Your task to perform on an android device: See recent photos Image 0: 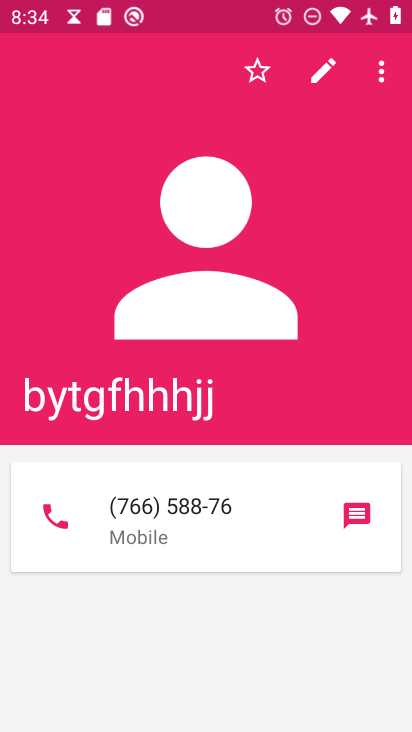
Step 0: press home button
Your task to perform on an android device: See recent photos Image 1: 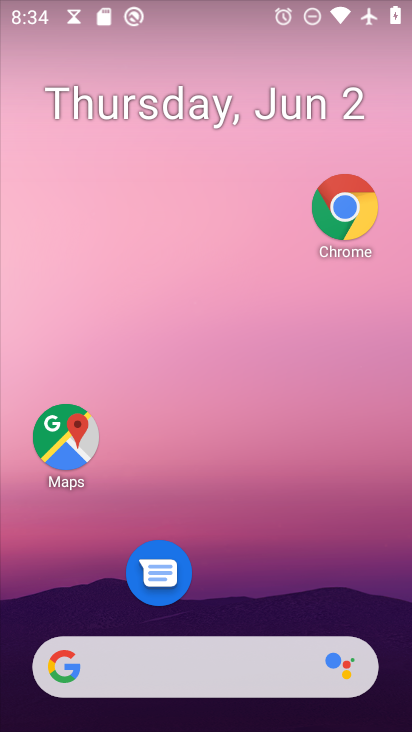
Step 1: drag from (175, 638) to (319, 98)
Your task to perform on an android device: See recent photos Image 2: 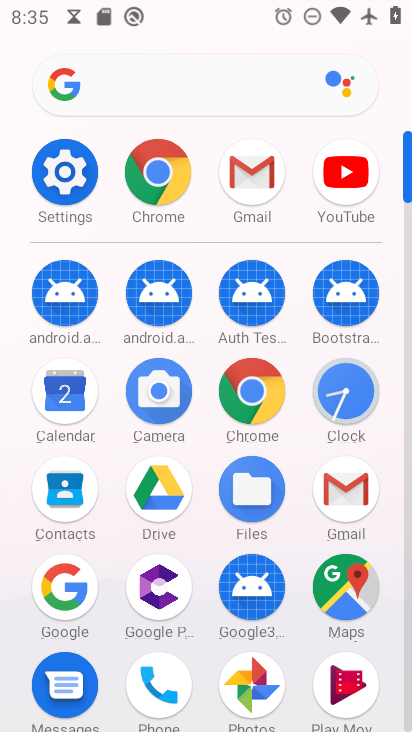
Step 2: click (248, 680)
Your task to perform on an android device: See recent photos Image 3: 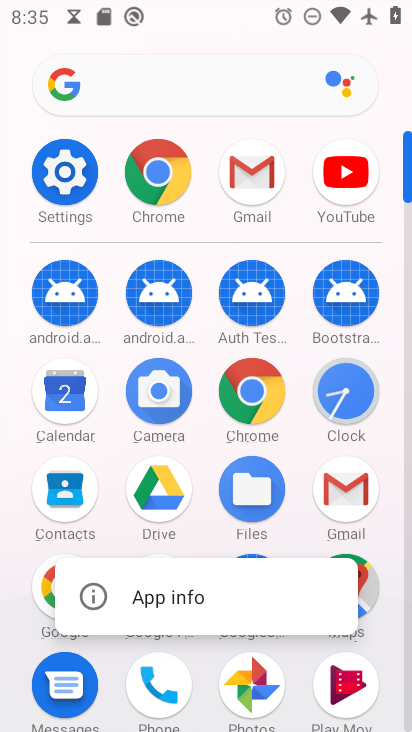
Step 3: click (256, 686)
Your task to perform on an android device: See recent photos Image 4: 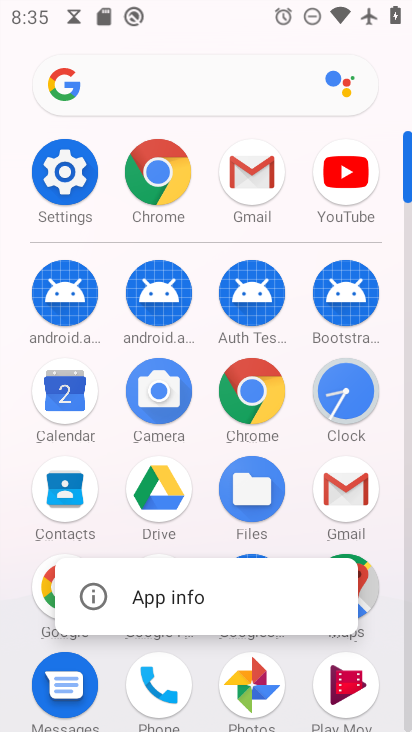
Step 4: click (252, 691)
Your task to perform on an android device: See recent photos Image 5: 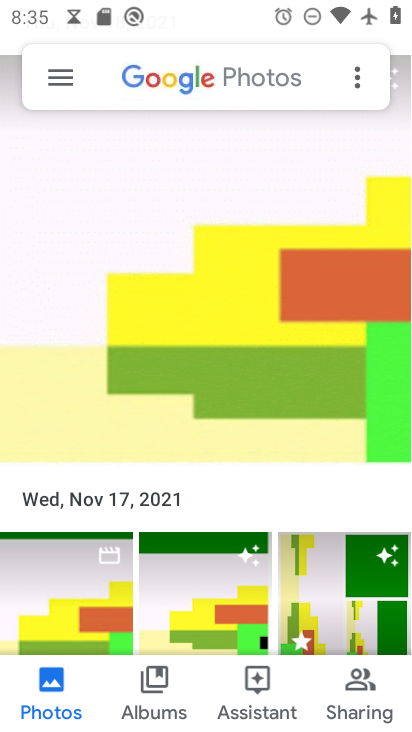
Step 5: click (162, 692)
Your task to perform on an android device: See recent photos Image 6: 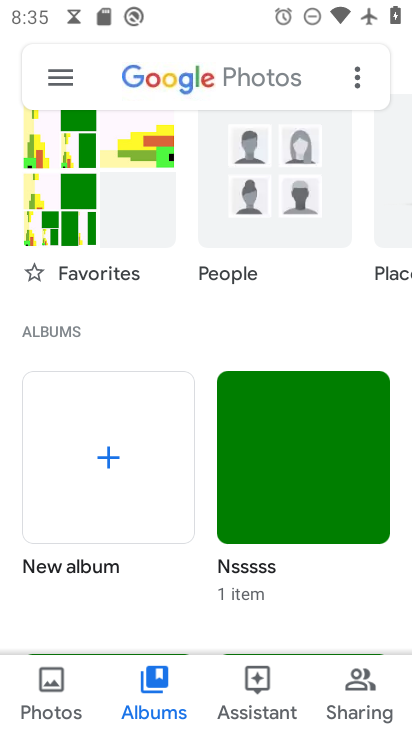
Step 6: task complete